Your task to perform on an android device: Open Maps and search for coffee Image 0: 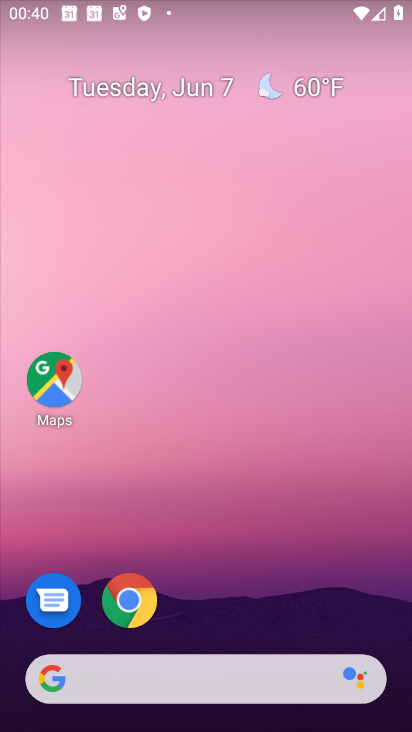
Step 0: drag from (210, 726) to (210, 120)
Your task to perform on an android device: Open Maps and search for coffee Image 1: 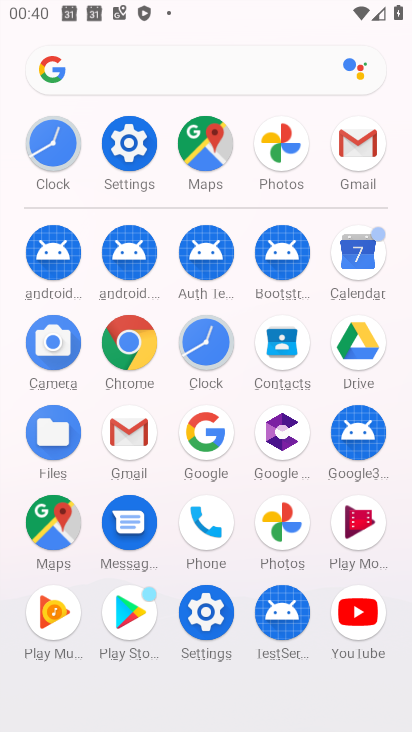
Step 1: click (48, 532)
Your task to perform on an android device: Open Maps and search for coffee Image 2: 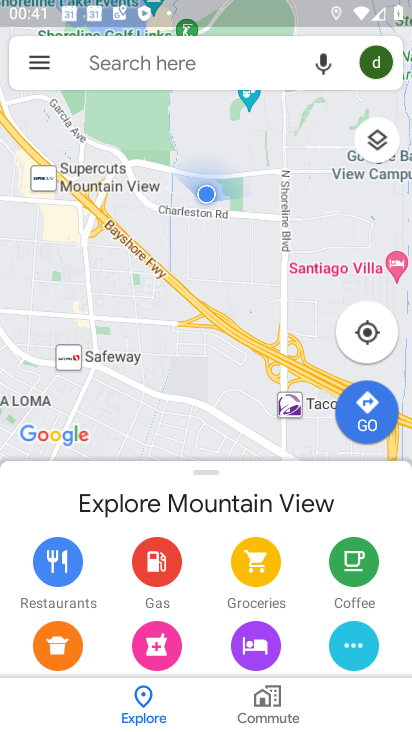
Step 2: click (215, 64)
Your task to perform on an android device: Open Maps and search for coffee Image 3: 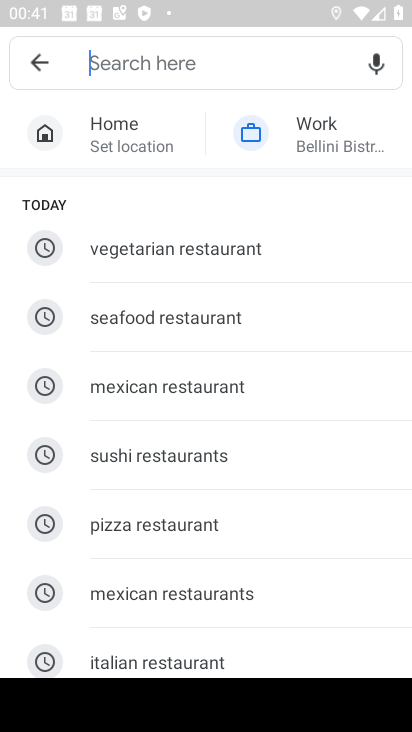
Step 3: type "coffee"
Your task to perform on an android device: Open Maps and search for coffee Image 4: 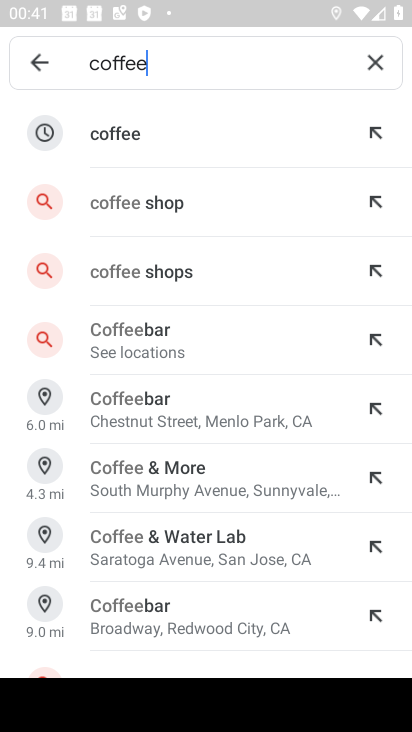
Step 4: click (128, 128)
Your task to perform on an android device: Open Maps and search for coffee Image 5: 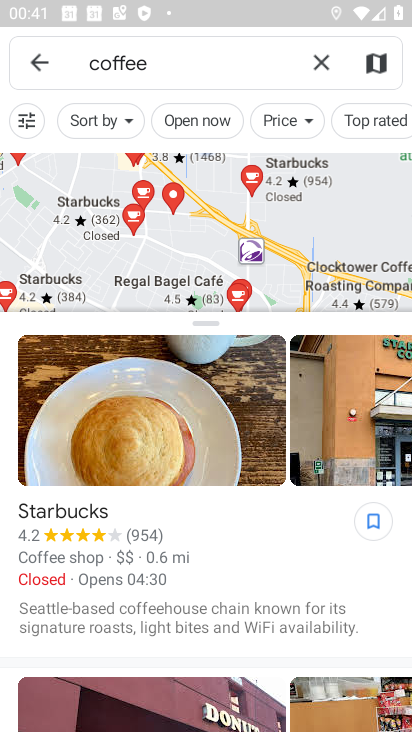
Step 5: task complete